Your task to perform on an android device: clear history in the chrome app Image 0: 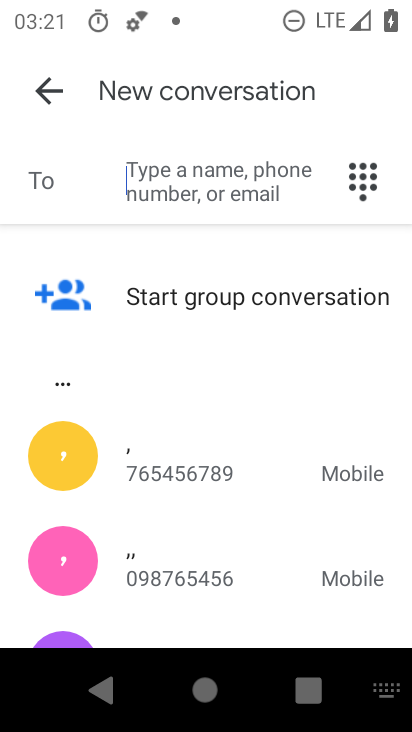
Step 0: press home button
Your task to perform on an android device: clear history in the chrome app Image 1: 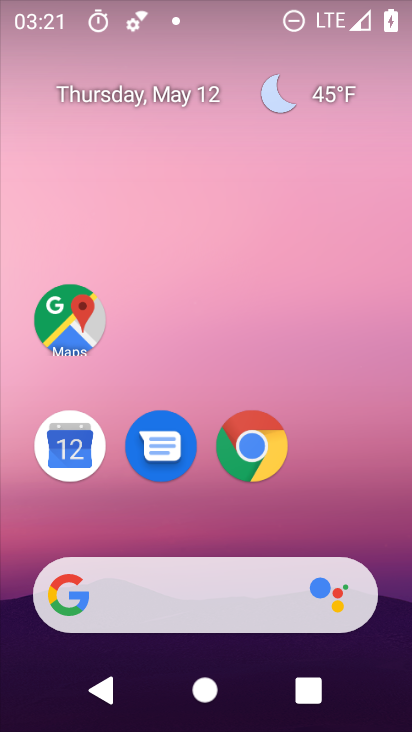
Step 1: click (263, 463)
Your task to perform on an android device: clear history in the chrome app Image 2: 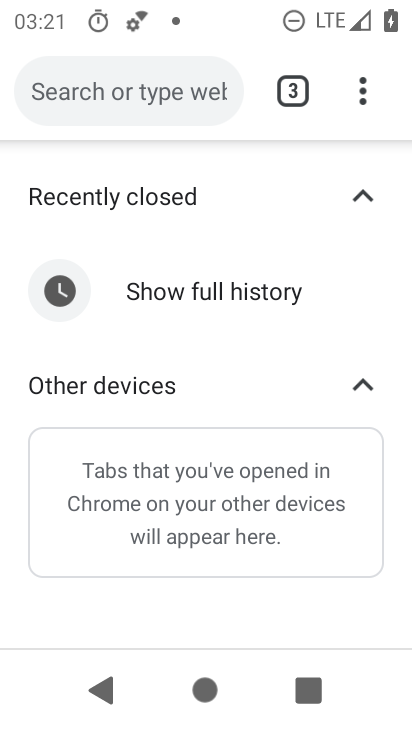
Step 2: drag from (364, 89) to (74, 510)
Your task to perform on an android device: clear history in the chrome app Image 3: 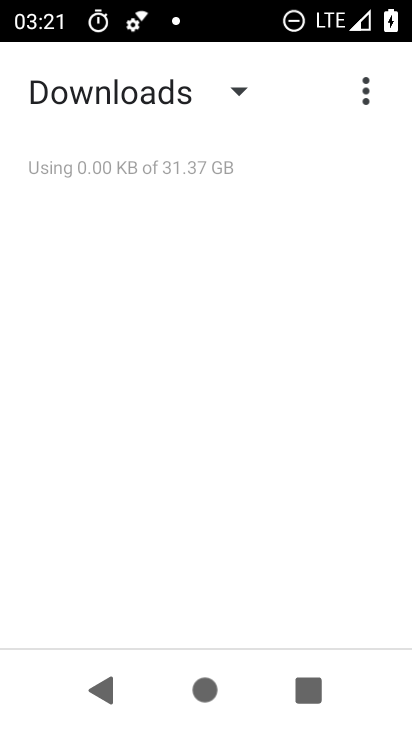
Step 3: drag from (356, 83) to (221, 373)
Your task to perform on an android device: clear history in the chrome app Image 4: 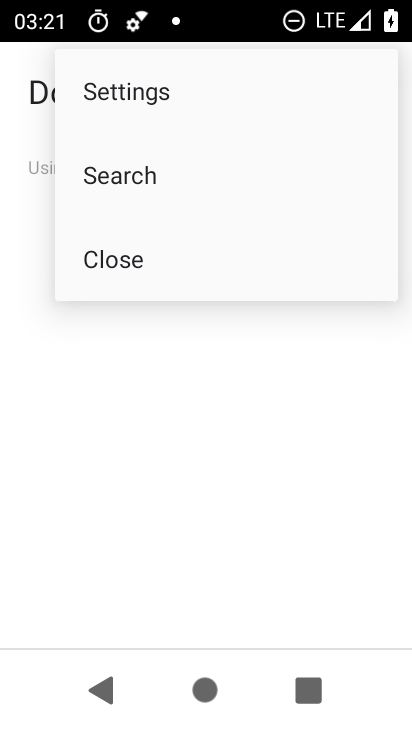
Step 4: click (221, 373)
Your task to perform on an android device: clear history in the chrome app Image 5: 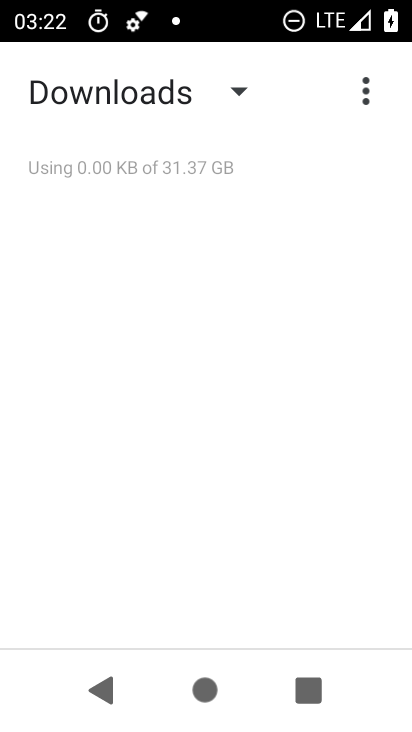
Step 5: click (364, 91)
Your task to perform on an android device: clear history in the chrome app Image 6: 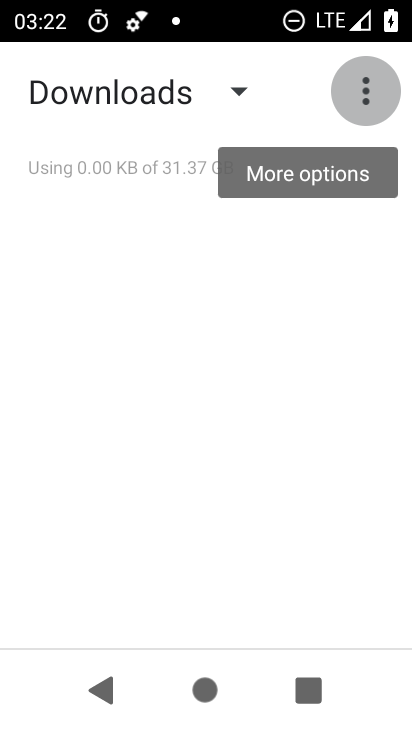
Step 6: click (364, 91)
Your task to perform on an android device: clear history in the chrome app Image 7: 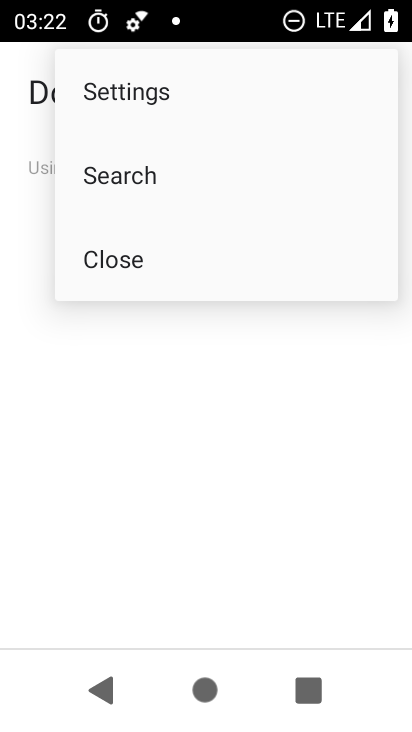
Step 7: click (166, 405)
Your task to perform on an android device: clear history in the chrome app Image 8: 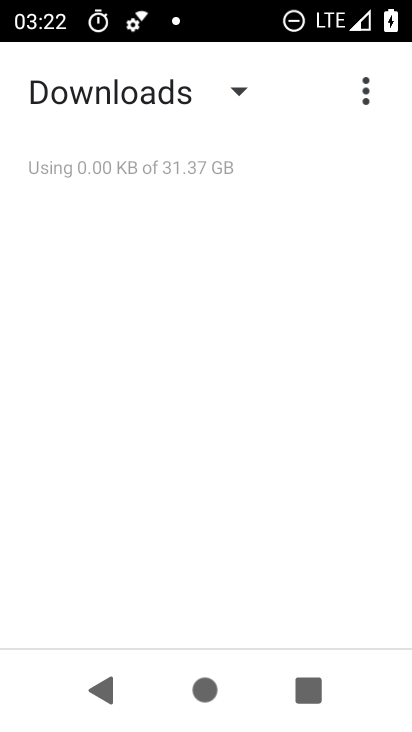
Step 8: press back button
Your task to perform on an android device: clear history in the chrome app Image 9: 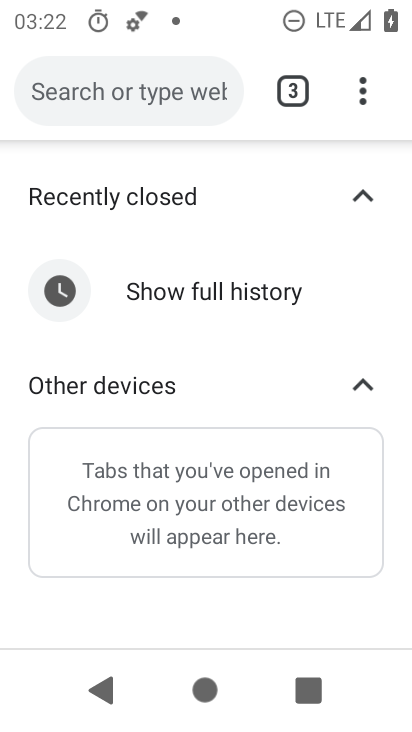
Step 9: drag from (359, 91) to (123, 359)
Your task to perform on an android device: clear history in the chrome app Image 10: 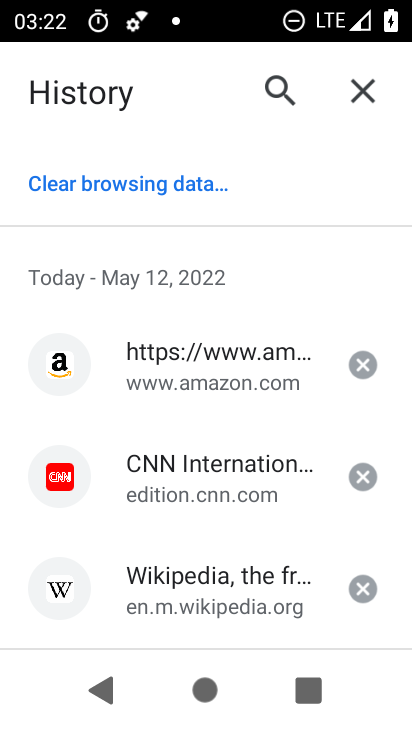
Step 10: click (110, 182)
Your task to perform on an android device: clear history in the chrome app Image 11: 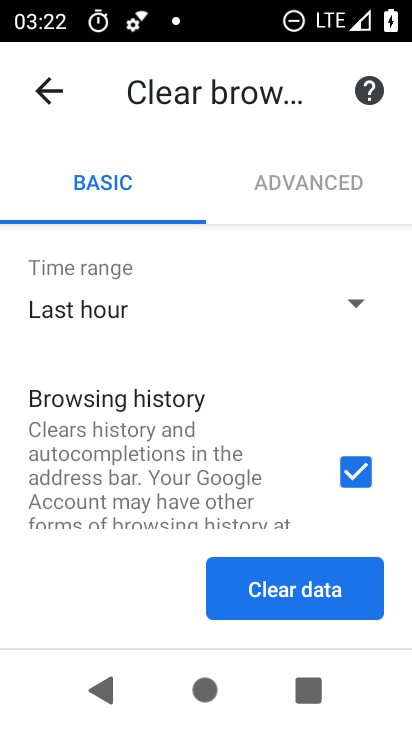
Step 11: click (294, 574)
Your task to perform on an android device: clear history in the chrome app Image 12: 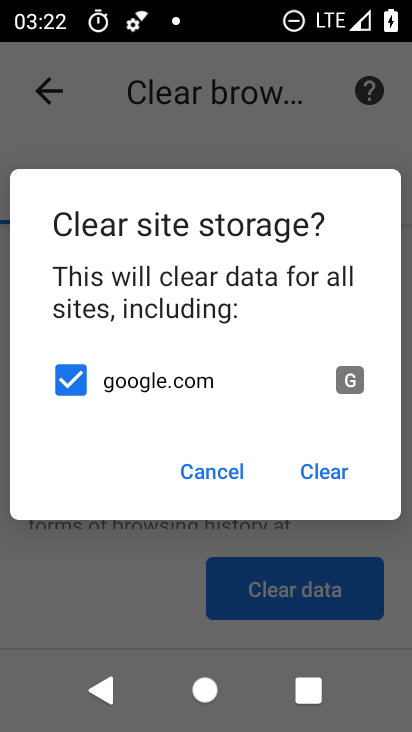
Step 12: click (329, 476)
Your task to perform on an android device: clear history in the chrome app Image 13: 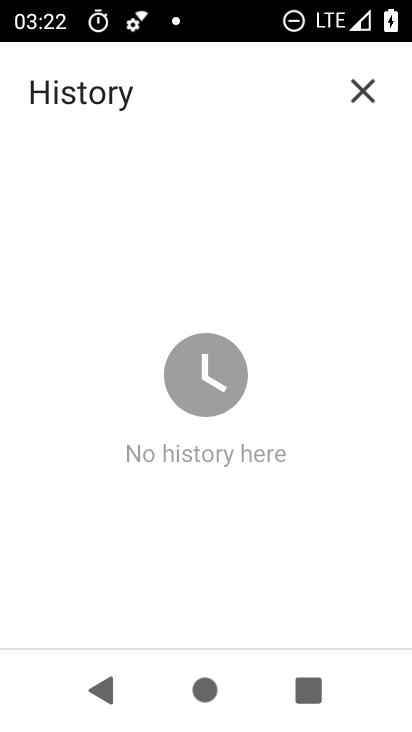
Step 13: task complete